Your task to perform on an android device: turn on priority inbox in the gmail app Image 0: 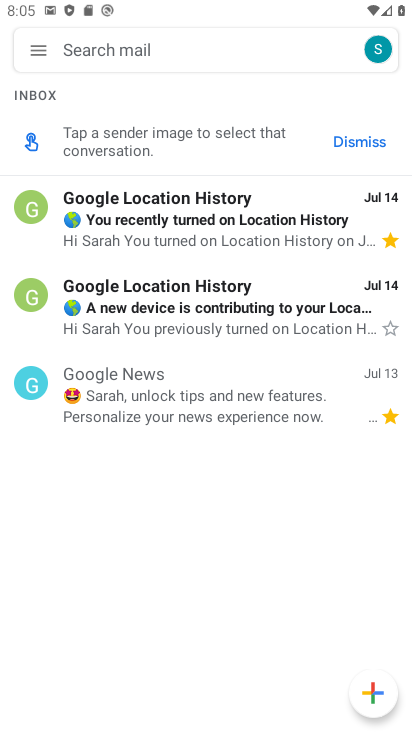
Step 0: press home button
Your task to perform on an android device: turn on priority inbox in the gmail app Image 1: 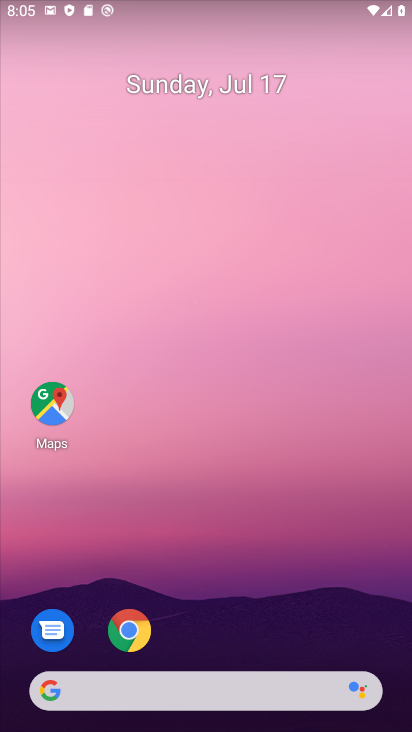
Step 1: drag from (170, 508) to (212, 83)
Your task to perform on an android device: turn on priority inbox in the gmail app Image 2: 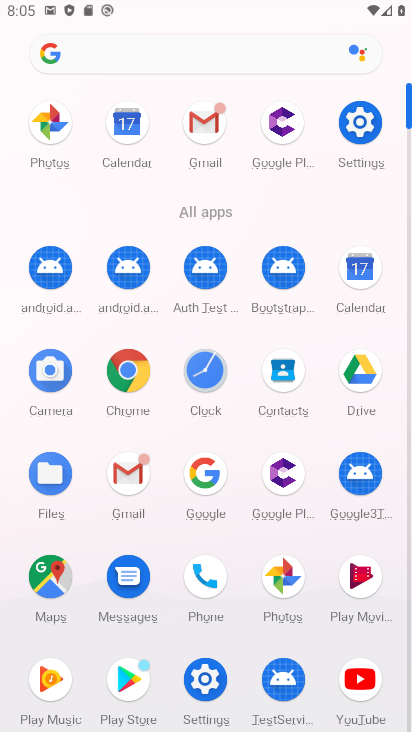
Step 2: click (132, 479)
Your task to perform on an android device: turn on priority inbox in the gmail app Image 3: 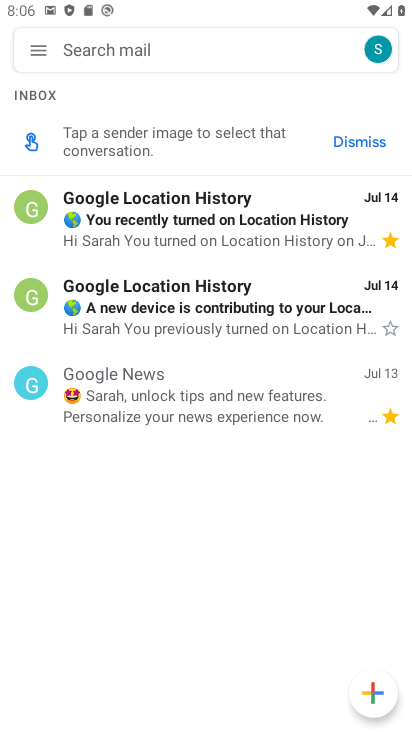
Step 3: click (40, 56)
Your task to perform on an android device: turn on priority inbox in the gmail app Image 4: 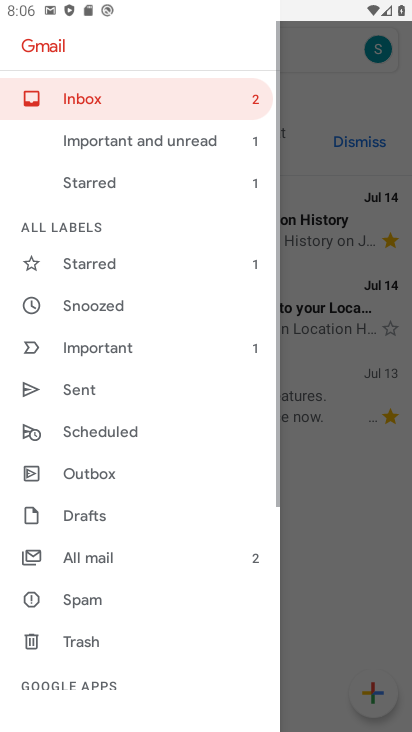
Step 4: drag from (133, 656) to (170, 136)
Your task to perform on an android device: turn on priority inbox in the gmail app Image 5: 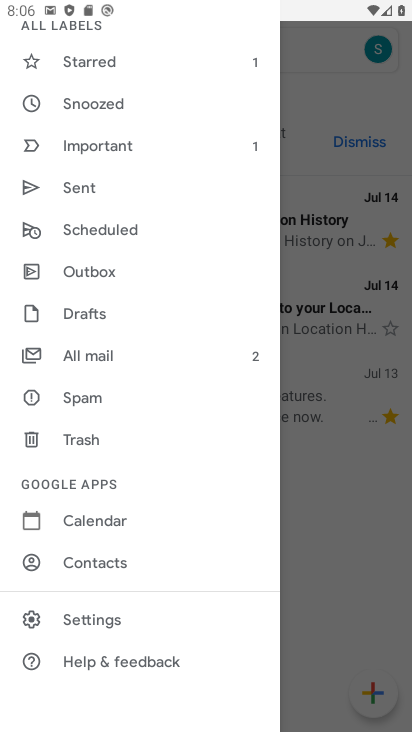
Step 5: click (106, 612)
Your task to perform on an android device: turn on priority inbox in the gmail app Image 6: 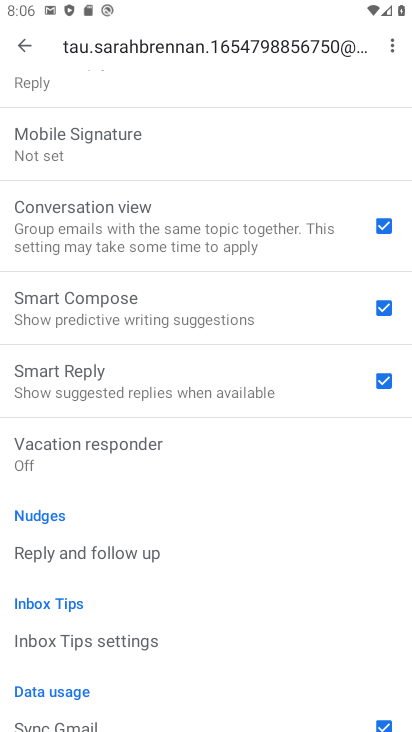
Step 6: drag from (102, 137) to (92, 709)
Your task to perform on an android device: turn on priority inbox in the gmail app Image 7: 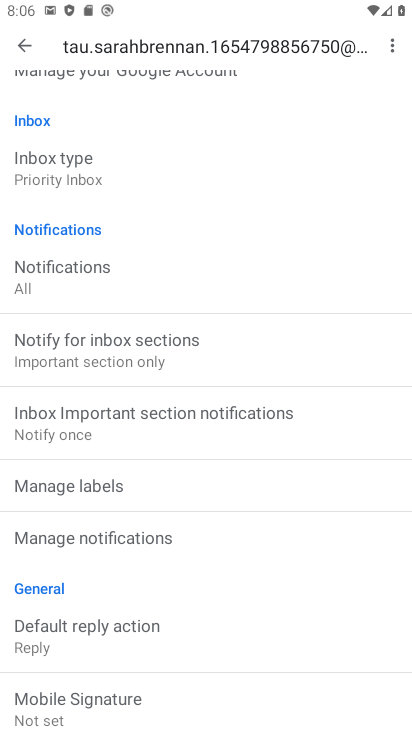
Step 7: click (67, 185)
Your task to perform on an android device: turn on priority inbox in the gmail app Image 8: 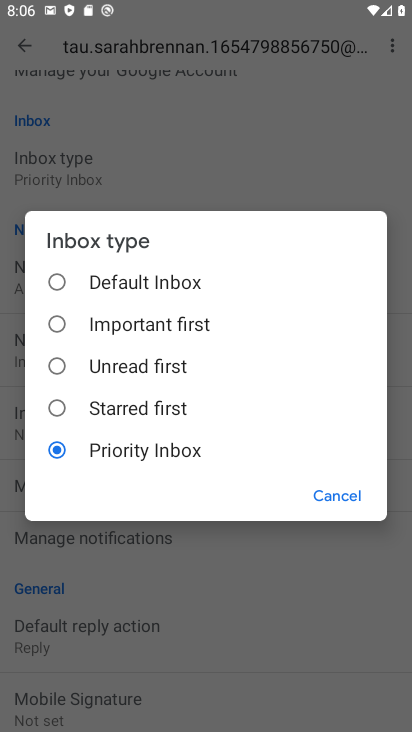
Step 8: task complete